Your task to perform on an android device: Open my contact list Image 0: 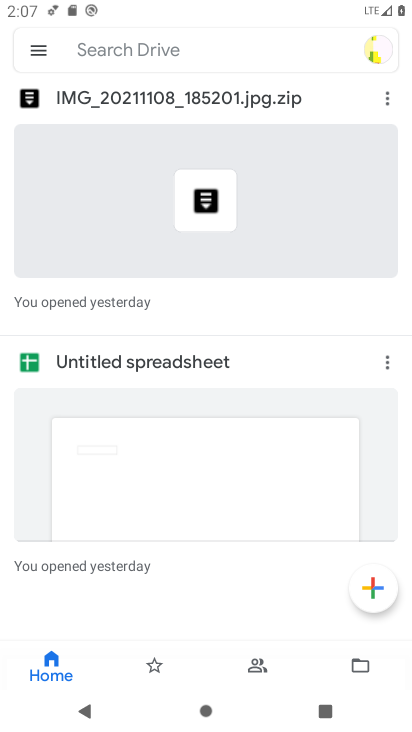
Step 0: press home button
Your task to perform on an android device: Open my contact list Image 1: 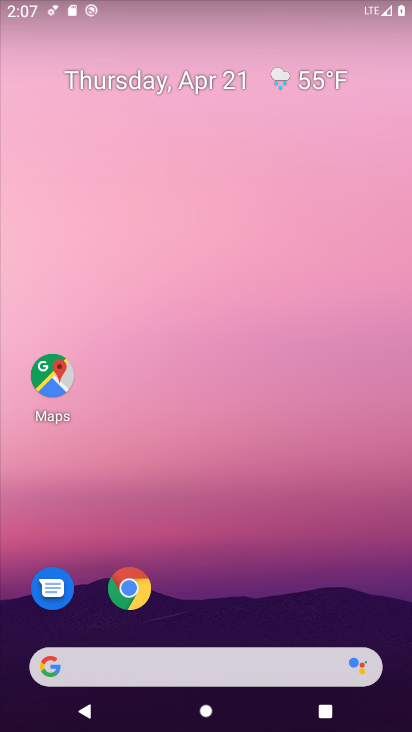
Step 1: drag from (216, 569) to (214, 57)
Your task to perform on an android device: Open my contact list Image 2: 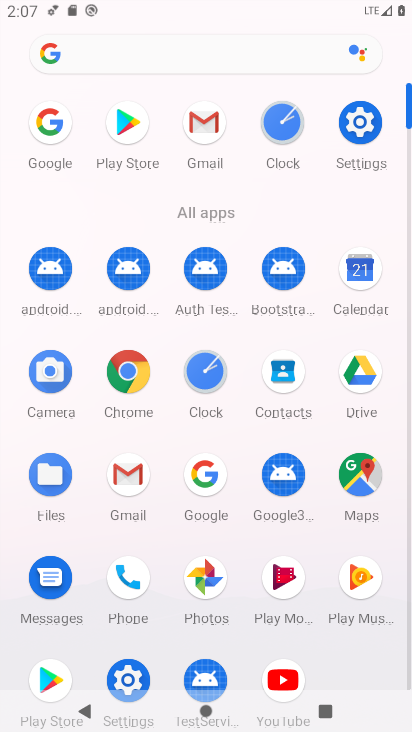
Step 2: click (287, 360)
Your task to perform on an android device: Open my contact list Image 3: 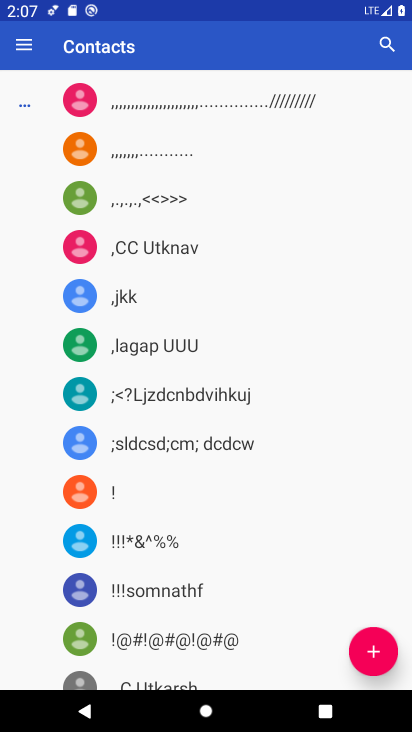
Step 3: task complete